Your task to perform on an android device: see tabs open on other devices in the chrome app Image 0: 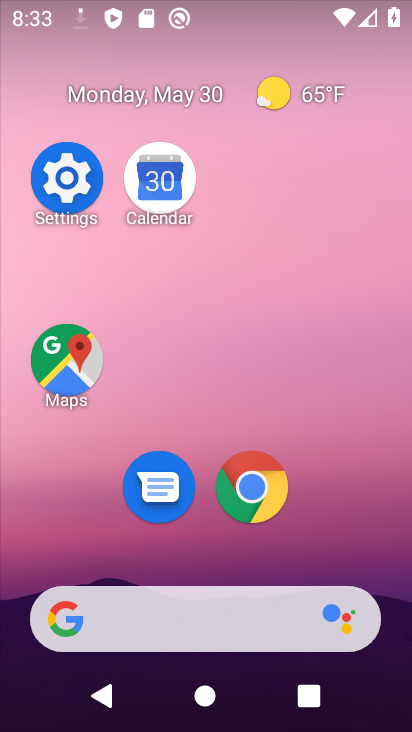
Step 0: click (270, 493)
Your task to perform on an android device: see tabs open on other devices in the chrome app Image 1: 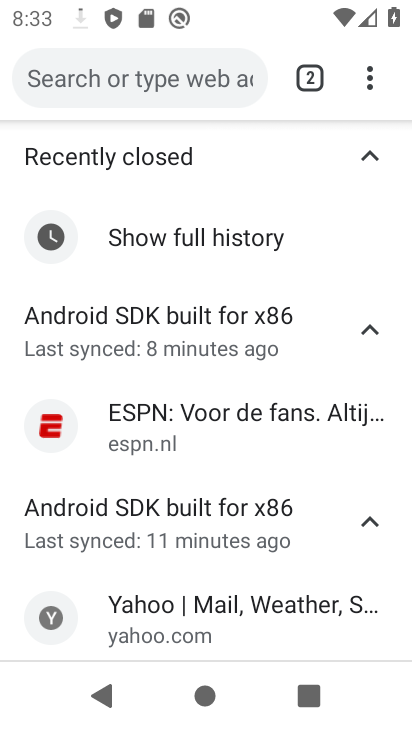
Step 1: click (373, 85)
Your task to perform on an android device: see tabs open on other devices in the chrome app Image 2: 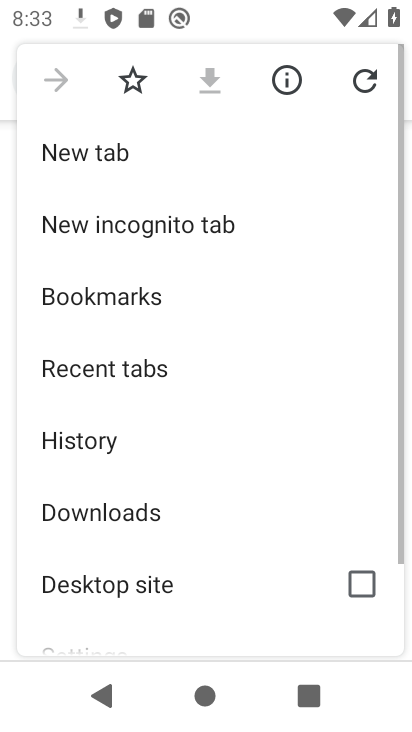
Step 2: click (150, 371)
Your task to perform on an android device: see tabs open on other devices in the chrome app Image 3: 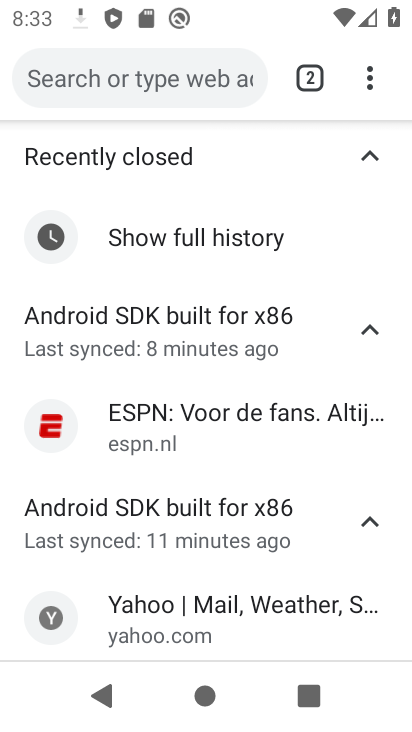
Step 3: task complete